Your task to perform on an android device: open a new tab in the chrome app Image 0: 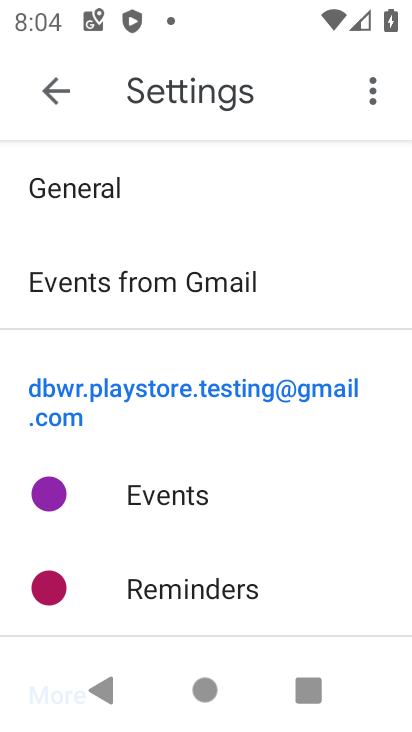
Step 0: press home button
Your task to perform on an android device: open a new tab in the chrome app Image 1: 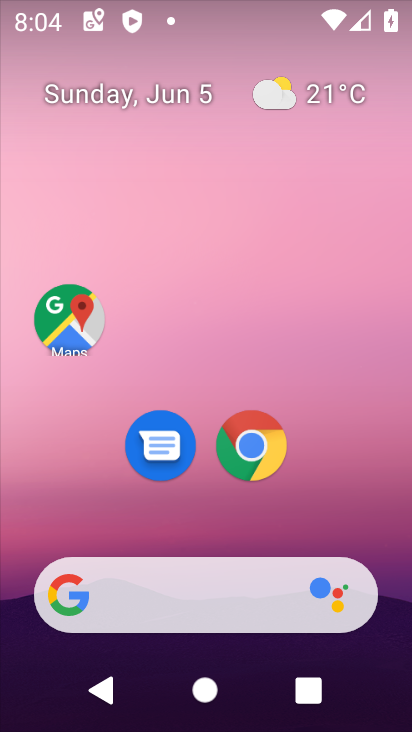
Step 1: click (241, 460)
Your task to perform on an android device: open a new tab in the chrome app Image 2: 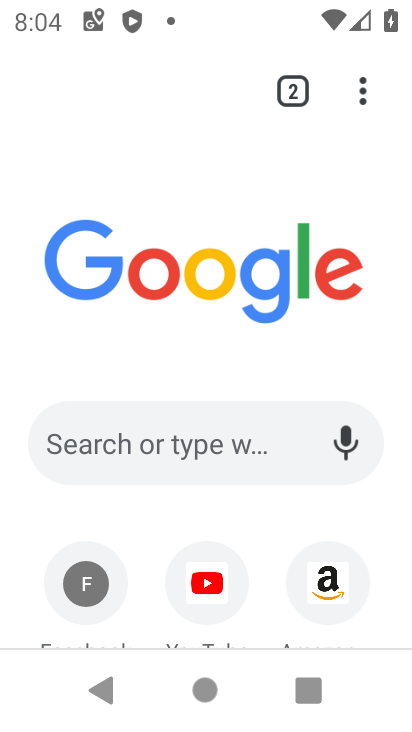
Step 2: click (300, 82)
Your task to perform on an android device: open a new tab in the chrome app Image 3: 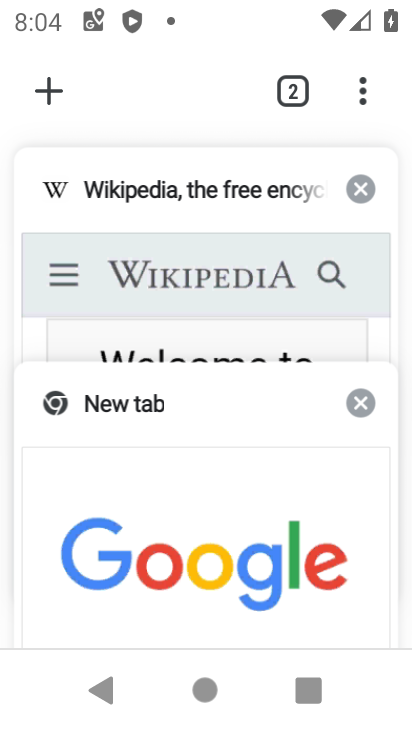
Step 3: click (43, 88)
Your task to perform on an android device: open a new tab in the chrome app Image 4: 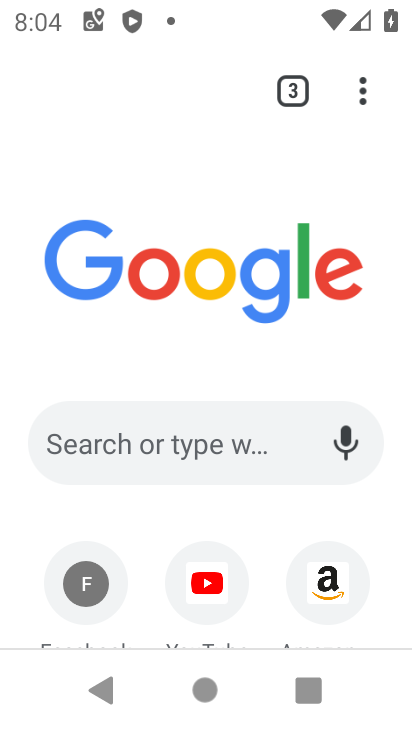
Step 4: task complete